Your task to perform on an android device: turn off improve location accuracy Image 0: 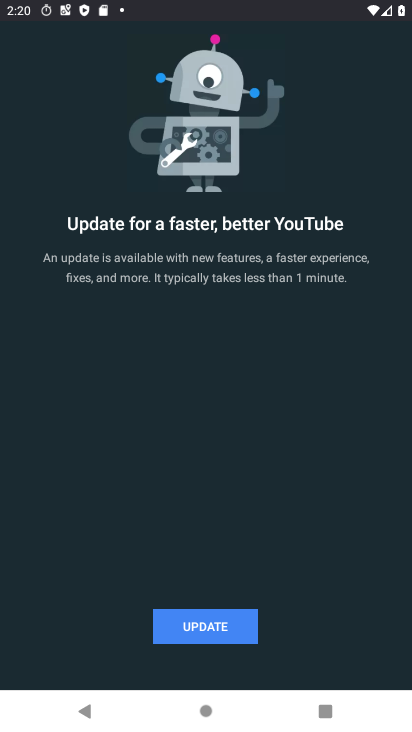
Step 0: press home button
Your task to perform on an android device: turn off improve location accuracy Image 1: 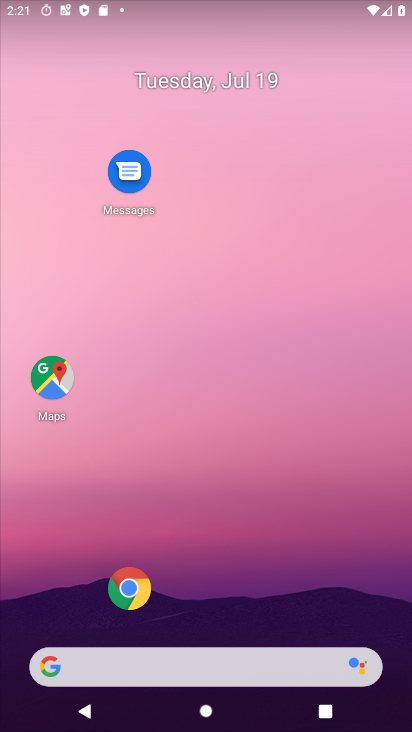
Step 1: drag from (74, 616) to (279, 163)
Your task to perform on an android device: turn off improve location accuracy Image 2: 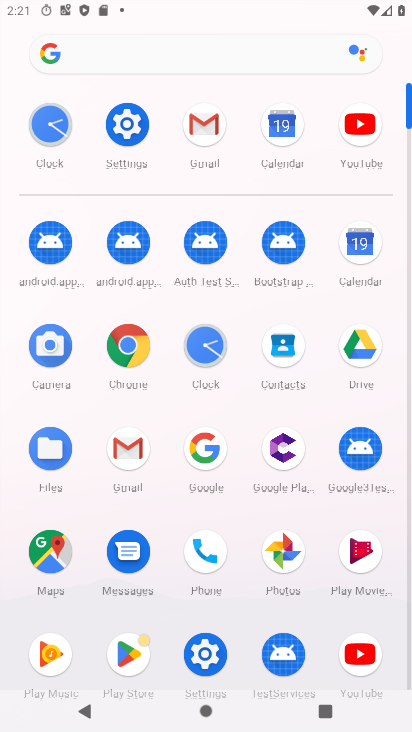
Step 2: click (211, 652)
Your task to perform on an android device: turn off improve location accuracy Image 3: 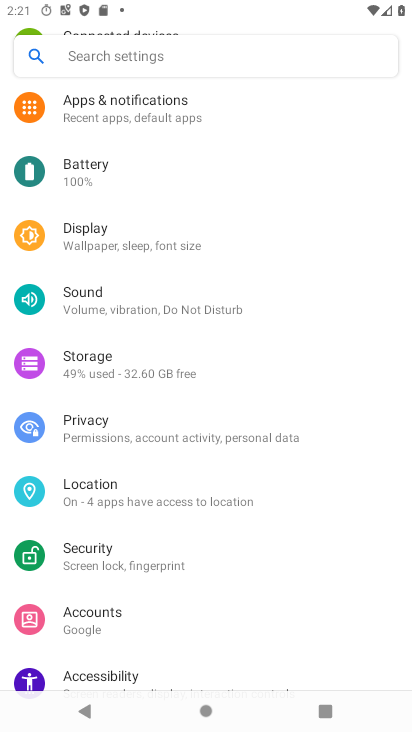
Step 3: click (95, 498)
Your task to perform on an android device: turn off improve location accuracy Image 4: 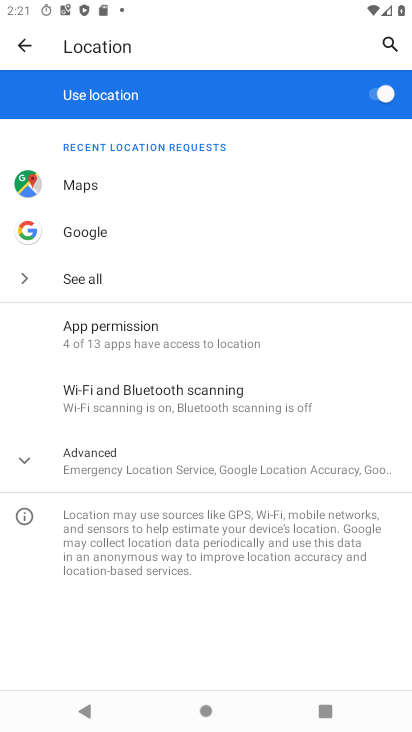
Step 4: click (131, 454)
Your task to perform on an android device: turn off improve location accuracy Image 5: 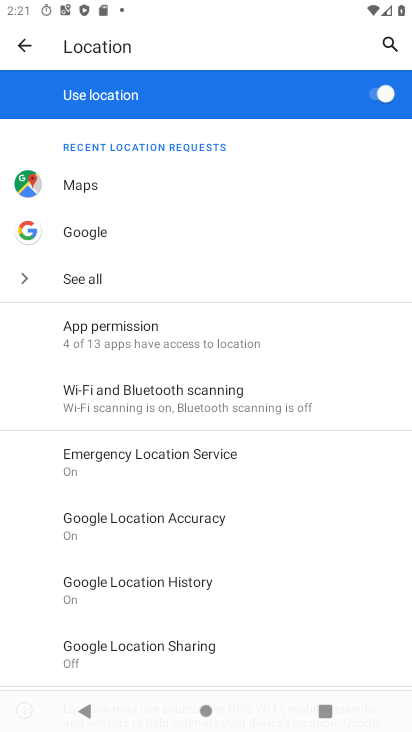
Step 5: click (135, 510)
Your task to perform on an android device: turn off improve location accuracy Image 6: 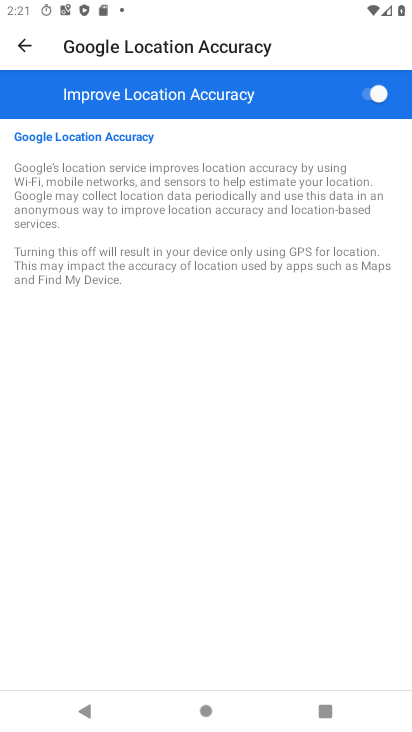
Step 6: click (374, 98)
Your task to perform on an android device: turn off improve location accuracy Image 7: 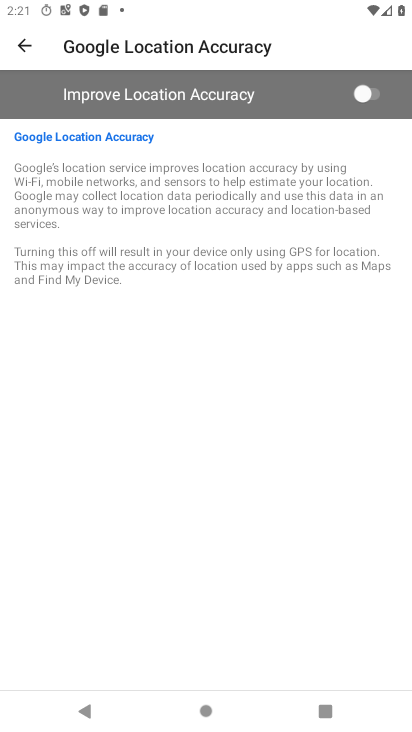
Step 7: task complete